Your task to perform on an android device: Go to battery settings Image 0: 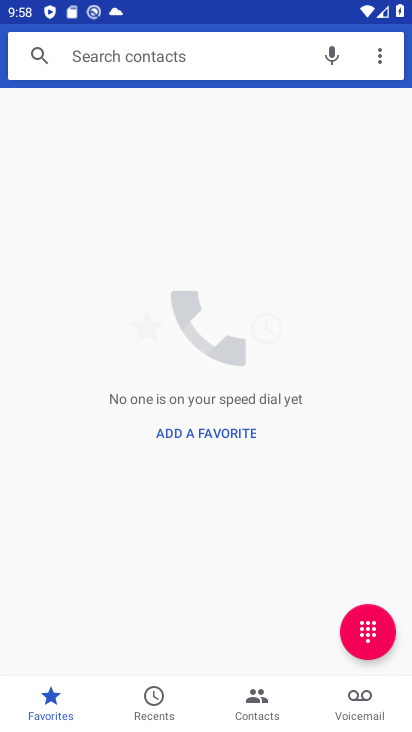
Step 0: press home button
Your task to perform on an android device: Go to battery settings Image 1: 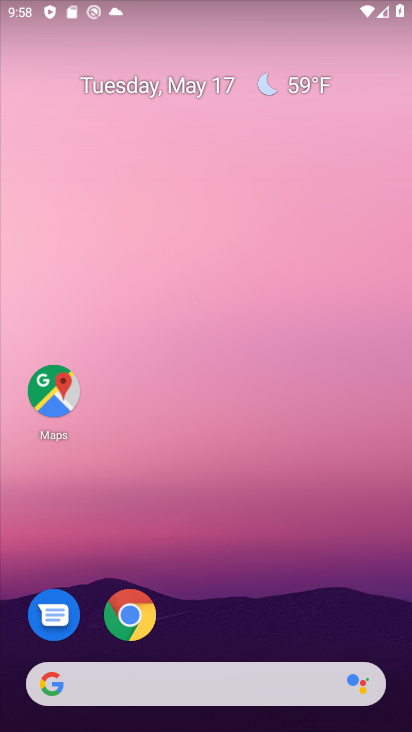
Step 1: drag from (150, 694) to (310, 97)
Your task to perform on an android device: Go to battery settings Image 2: 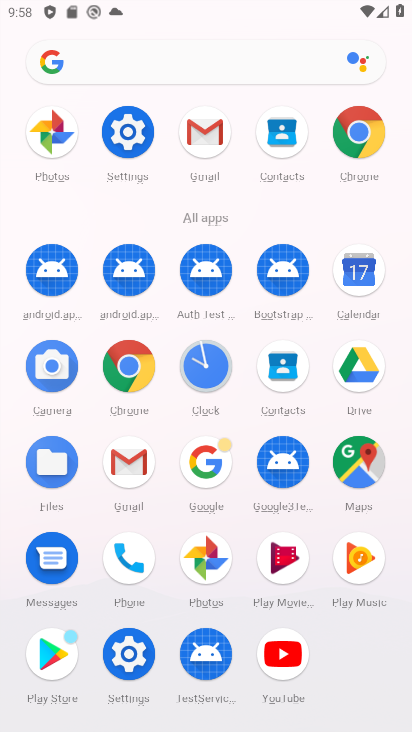
Step 2: click (130, 131)
Your task to perform on an android device: Go to battery settings Image 3: 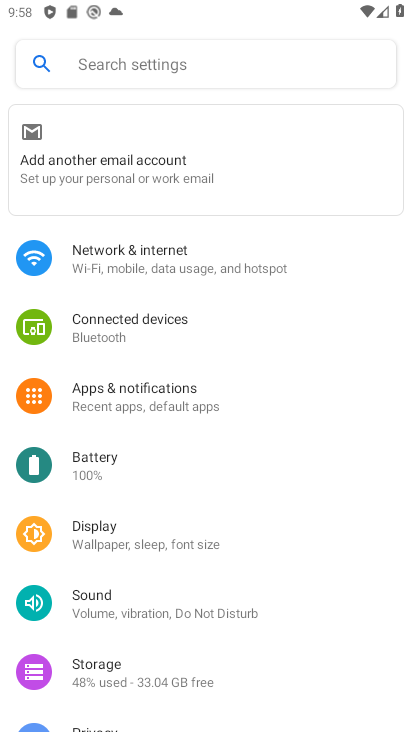
Step 3: click (96, 457)
Your task to perform on an android device: Go to battery settings Image 4: 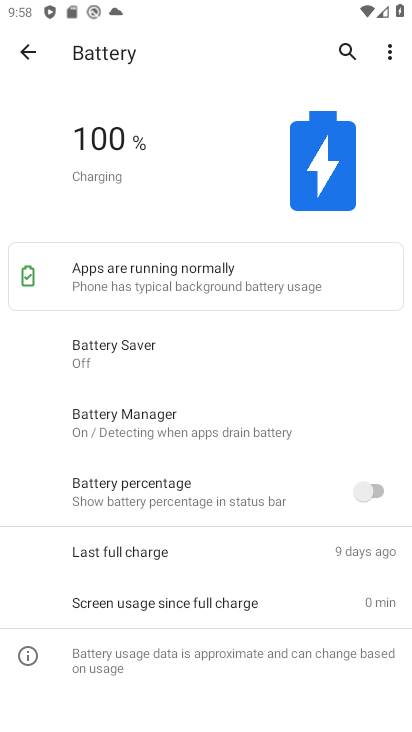
Step 4: task complete